Your task to perform on an android device: turn on the 24-hour format for clock Image 0: 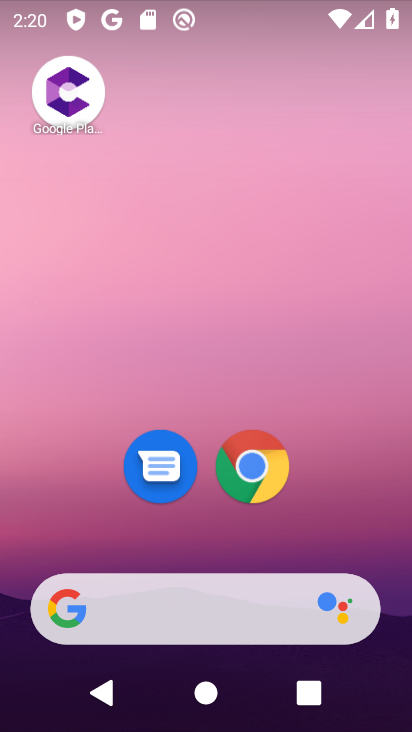
Step 0: drag from (344, 290) to (332, 0)
Your task to perform on an android device: turn on the 24-hour format for clock Image 1: 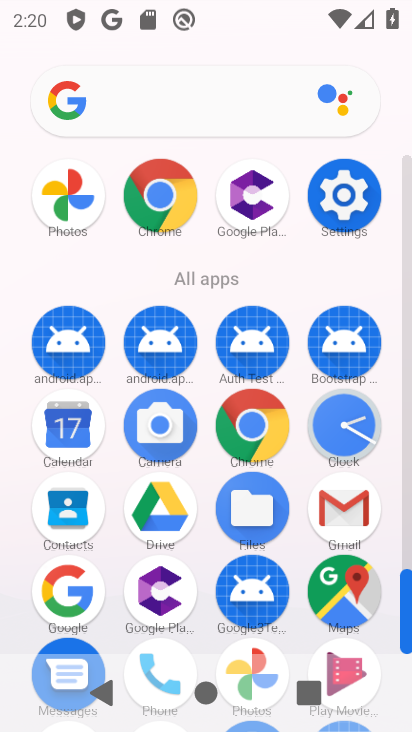
Step 1: click (349, 437)
Your task to perform on an android device: turn on the 24-hour format for clock Image 2: 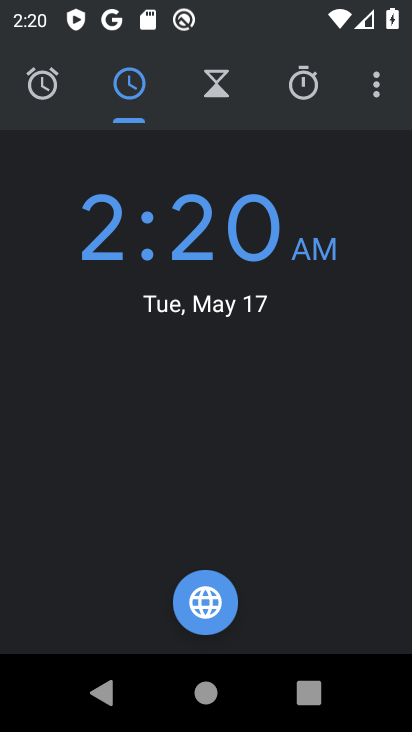
Step 2: drag from (387, 81) to (195, 186)
Your task to perform on an android device: turn on the 24-hour format for clock Image 3: 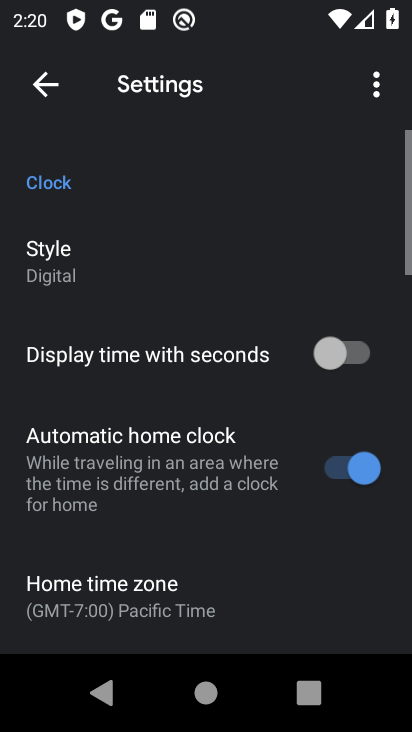
Step 3: drag from (103, 577) to (209, 101)
Your task to perform on an android device: turn on the 24-hour format for clock Image 4: 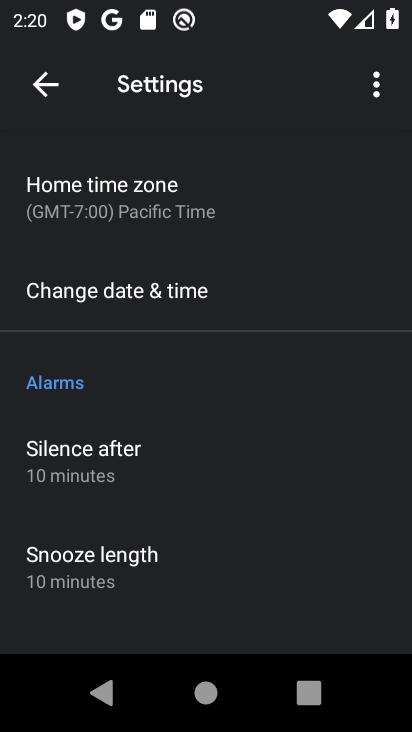
Step 4: drag from (246, 453) to (329, 45)
Your task to perform on an android device: turn on the 24-hour format for clock Image 5: 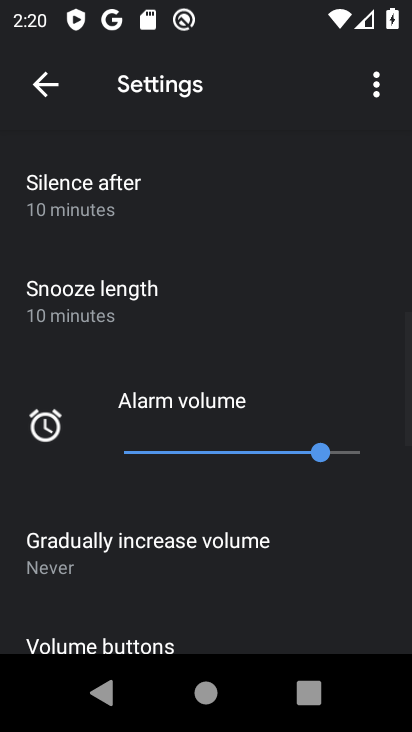
Step 5: drag from (165, 589) to (275, 133)
Your task to perform on an android device: turn on the 24-hour format for clock Image 6: 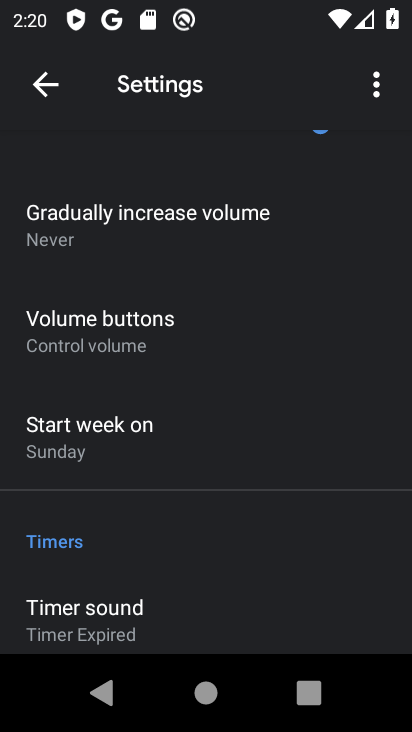
Step 6: drag from (140, 557) to (299, 155)
Your task to perform on an android device: turn on the 24-hour format for clock Image 7: 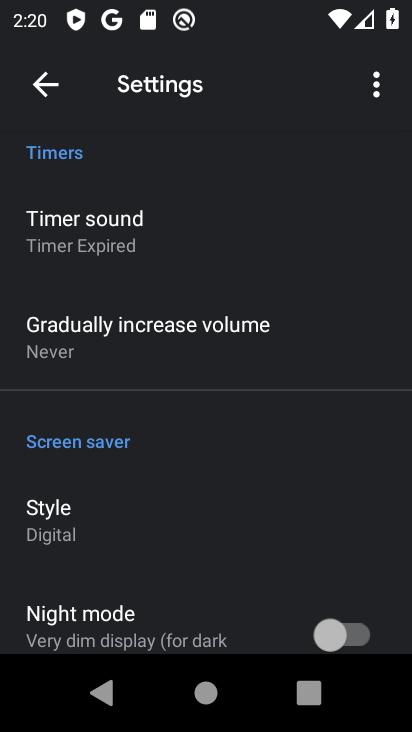
Step 7: drag from (244, 259) to (177, 731)
Your task to perform on an android device: turn on the 24-hour format for clock Image 8: 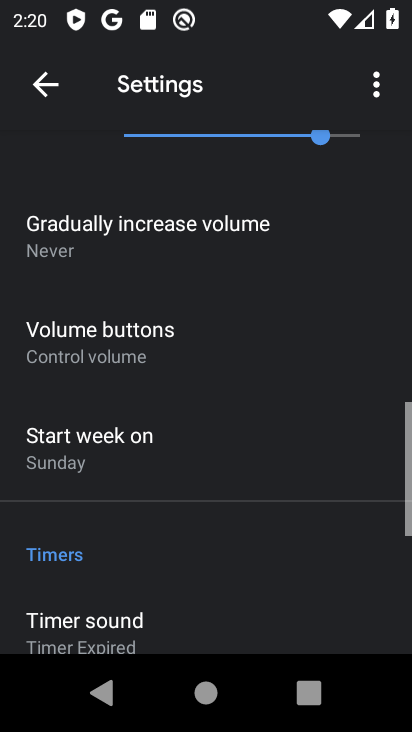
Step 8: drag from (211, 417) to (184, 684)
Your task to perform on an android device: turn on the 24-hour format for clock Image 9: 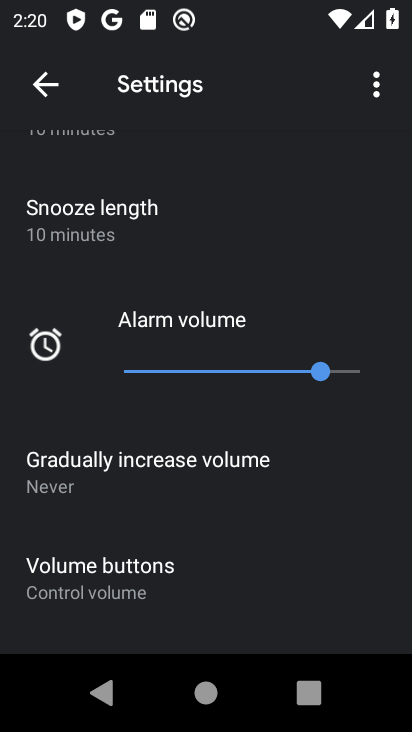
Step 9: drag from (235, 345) to (201, 689)
Your task to perform on an android device: turn on the 24-hour format for clock Image 10: 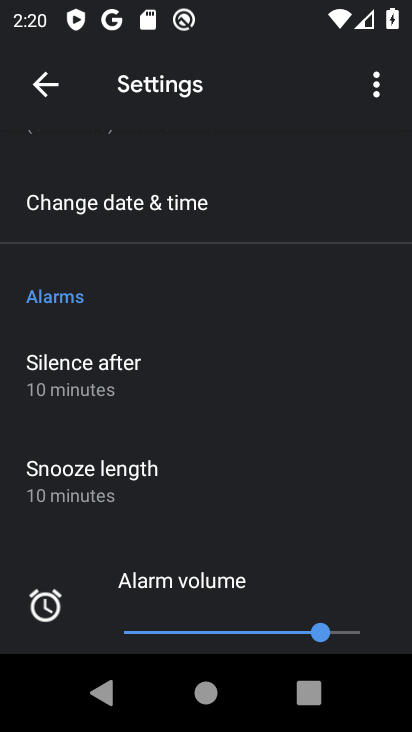
Step 10: click (191, 203)
Your task to perform on an android device: turn on the 24-hour format for clock Image 11: 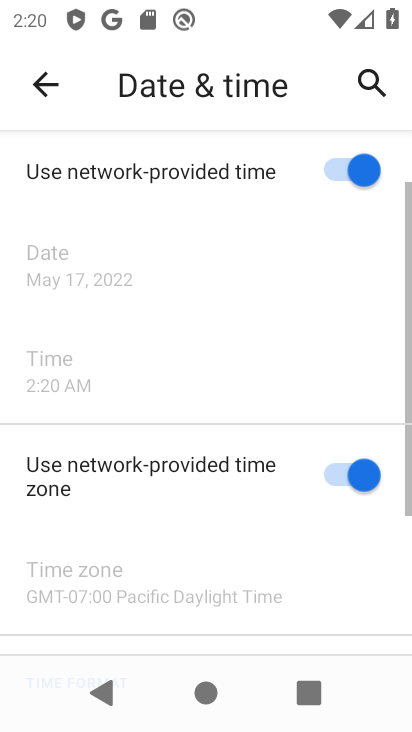
Step 11: drag from (204, 555) to (250, 125)
Your task to perform on an android device: turn on the 24-hour format for clock Image 12: 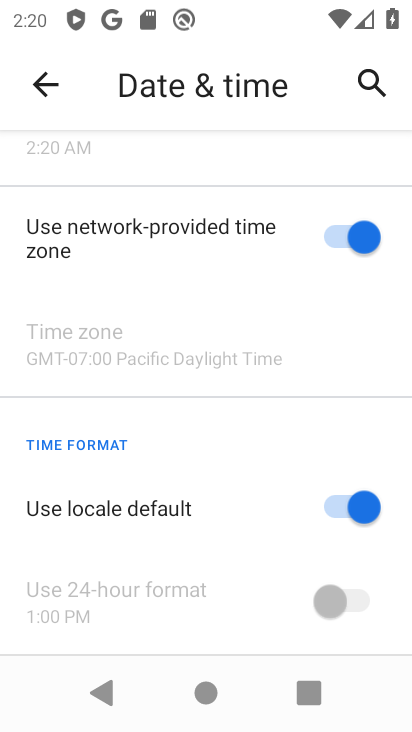
Step 12: click (363, 491)
Your task to perform on an android device: turn on the 24-hour format for clock Image 13: 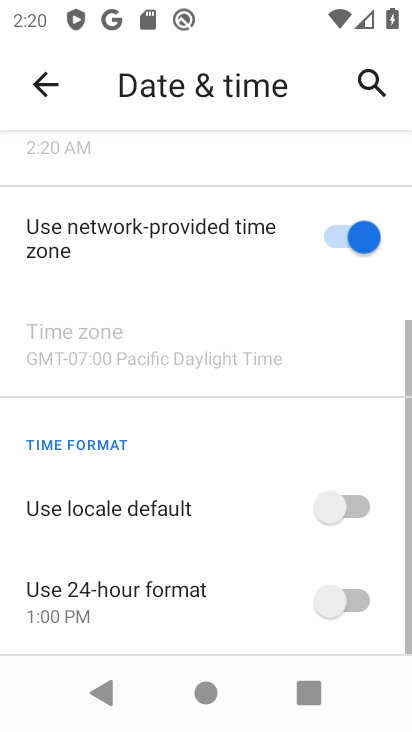
Step 13: click (353, 607)
Your task to perform on an android device: turn on the 24-hour format for clock Image 14: 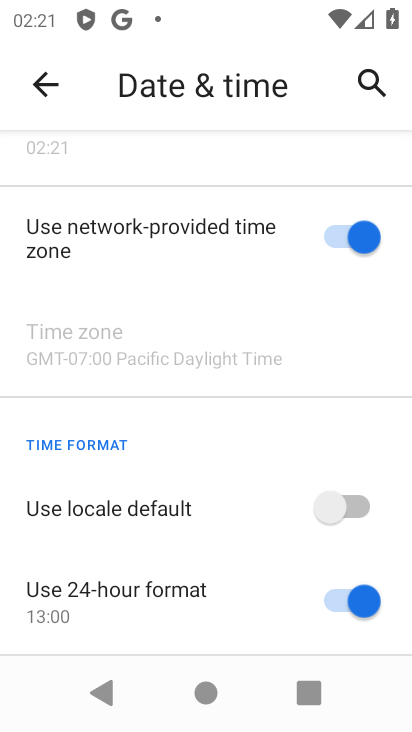
Step 14: task complete